Your task to perform on an android device: choose inbox layout in the gmail app Image 0: 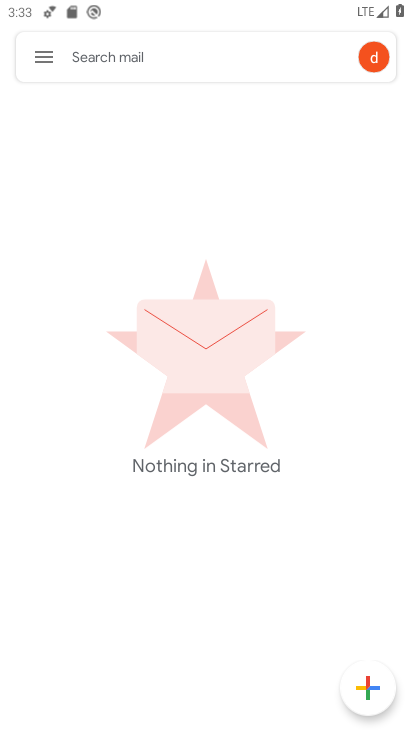
Step 0: press home button
Your task to perform on an android device: choose inbox layout in the gmail app Image 1: 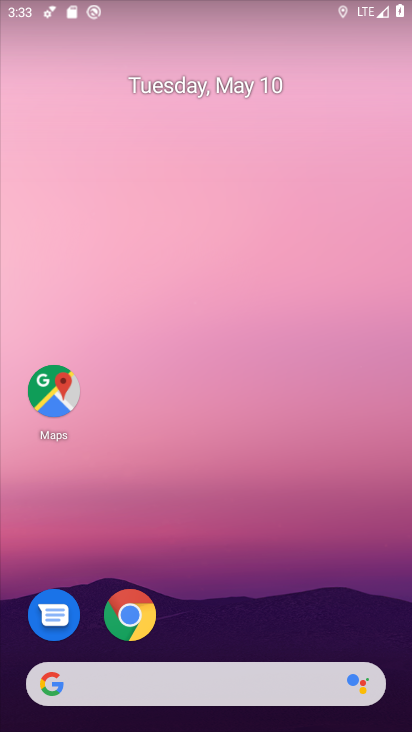
Step 1: drag from (258, 629) to (218, 164)
Your task to perform on an android device: choose inbox layout in the gmail app Image 2: 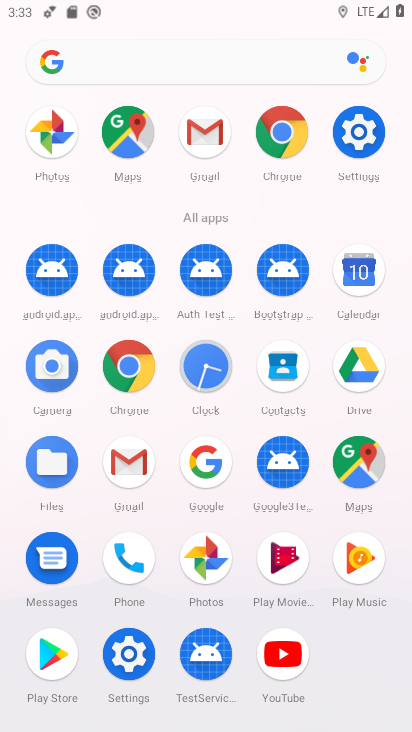
Step 2: click (197, 139)
Your task to perform on an android device: choose inbox layout in the gmail app Image 3: 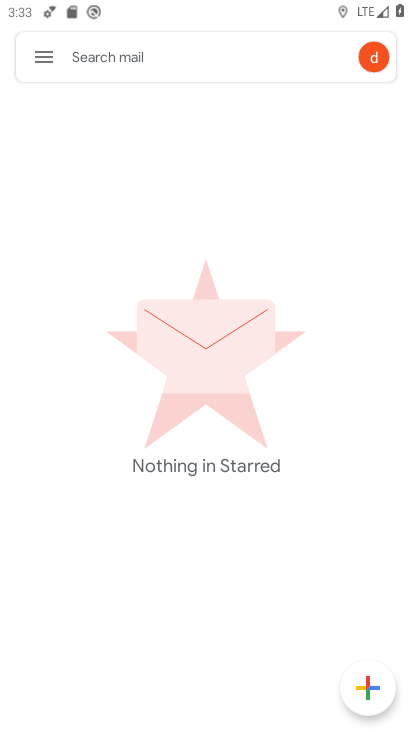
Step 3: click (47, 54)
Your task to perform on an android device: choose inbox layout in the gmail app Image 4: 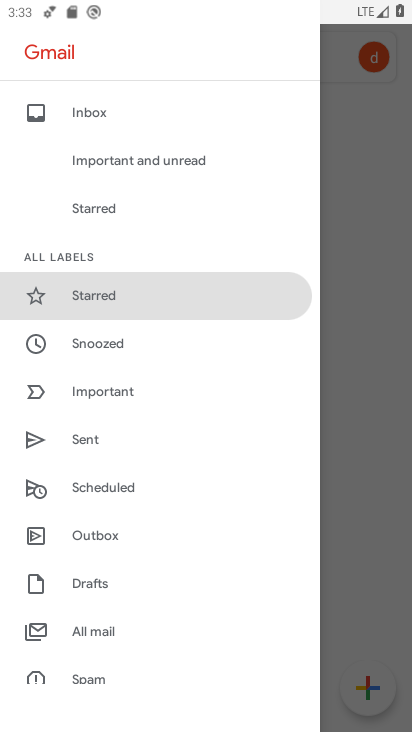
Step 4: click (87, 109)
Your task to perform on an android device: choose inbox layout in the gmail app Image 5: 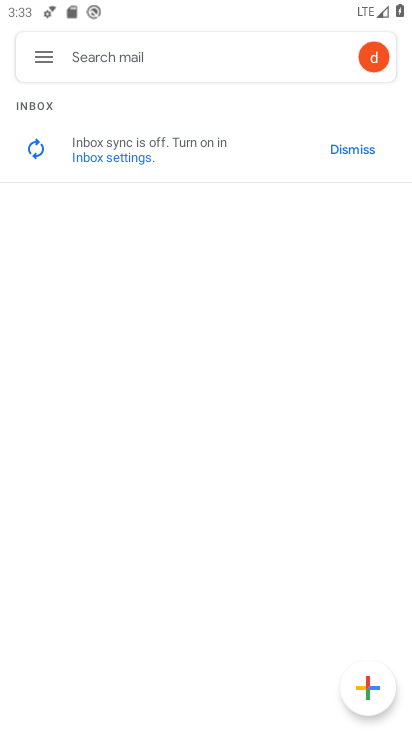
Step 5: click (139, 159)
Your task to perform on an android device: choose inbox layout in the gmail app Image 6: 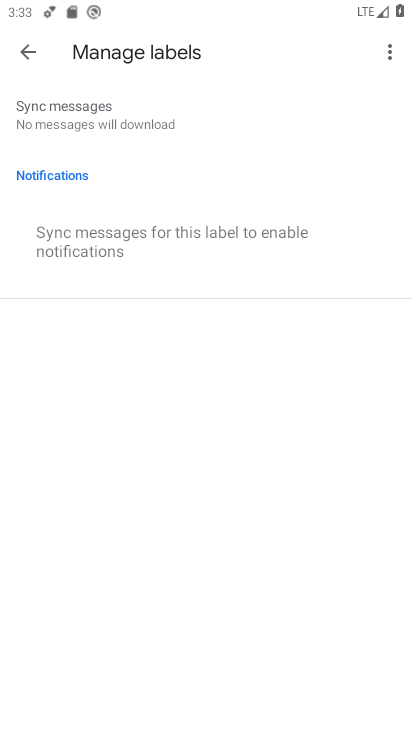
Step 6: click (31, 44)
Your task to perform on an android device: choose inbox layout in the gmail app Image 7: 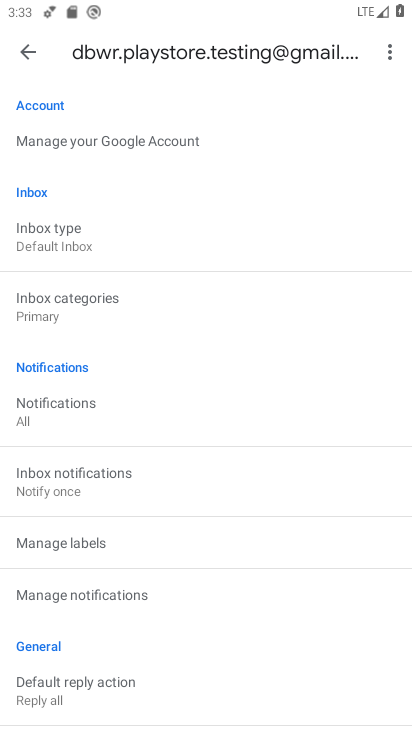
Step 7: drag from (333, 357) to (318, 131)
Your task to perform on an android device: choose inbox layout in the gmail app Image 8: 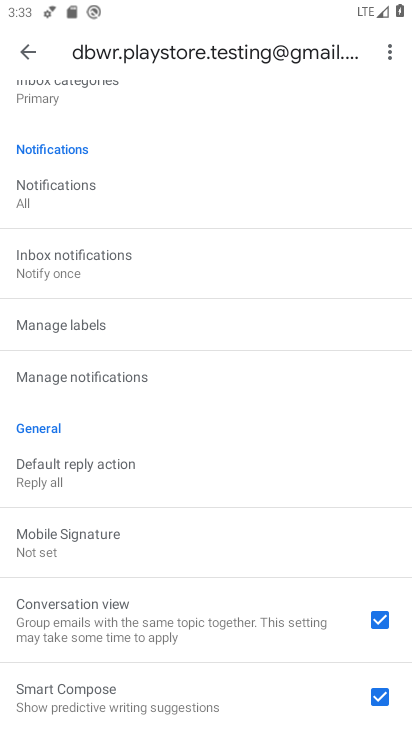
Step 8: click (26, 51)
Your task to perform on an android device: choose inbox layout in the gmail app Image 9: 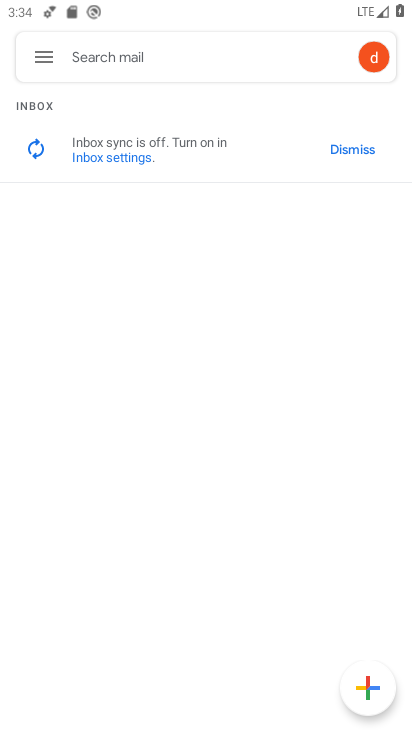
Step 9: click (38, 63)
Your task to perform on an android device: choose inbox layout in the gmail app Image 10: 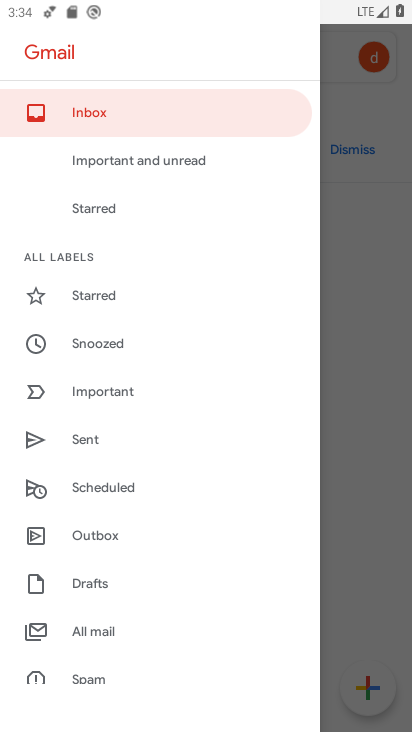
Step 10: drag from (222, 583) to (212, 291)
Your task to perform on an android device: choose inbox layout in the gmail app Image 11: 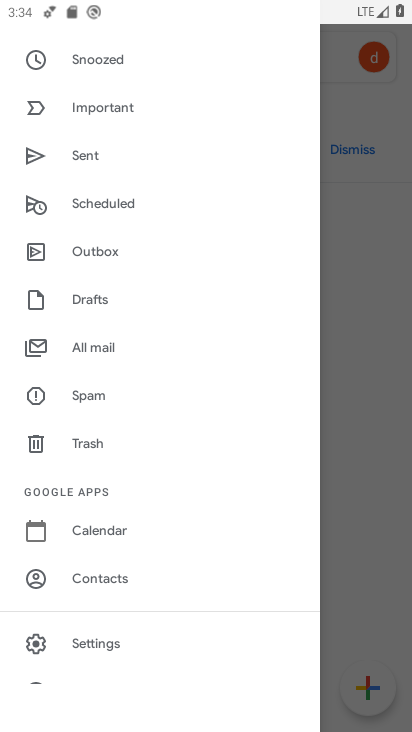
Step 11: click (106, 640)
Your task to perform on an android device: choose inbox layout in the gmail app Image 12: 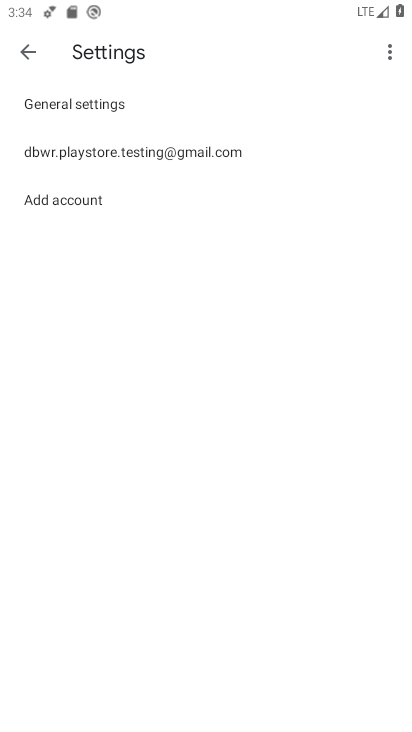
Step 12: click (115, 154)
Your task to perform on an android device: choose inbox layout in the gmail app Image 13: 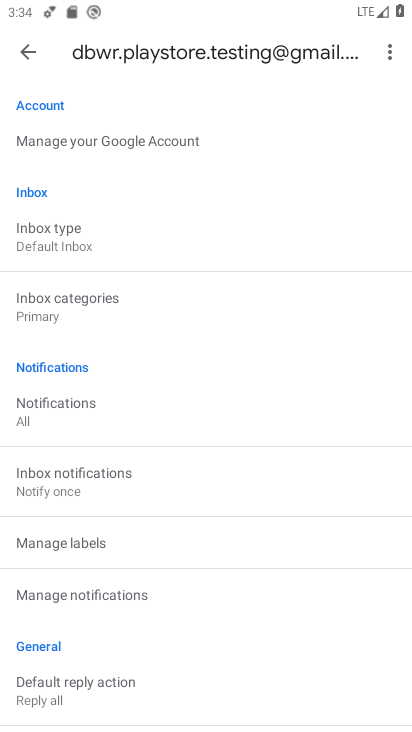
Step 13: click (76, 239)
Your task to perform on an android device: choose inbox layout in the gmail app Image 14: 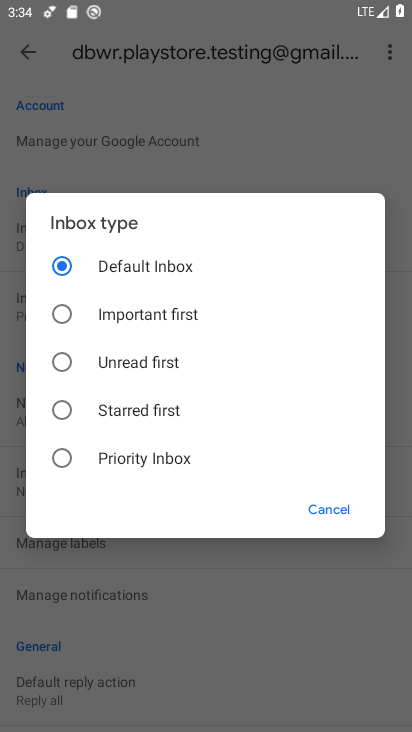
Step 14: click (341, 515)
Your task to perform on an android device: choose inbox layout in the gmail app Image 15: 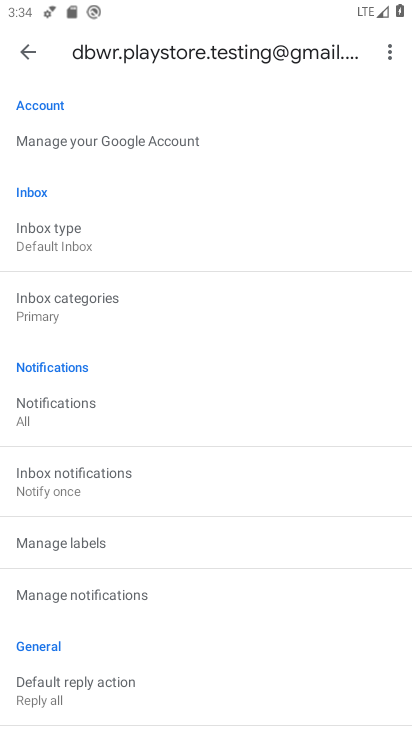
Step 15: drag from (334, 355) to (332, 178)
Your task to perform on an android device: choose inbox layout in the gmail app Image 16: 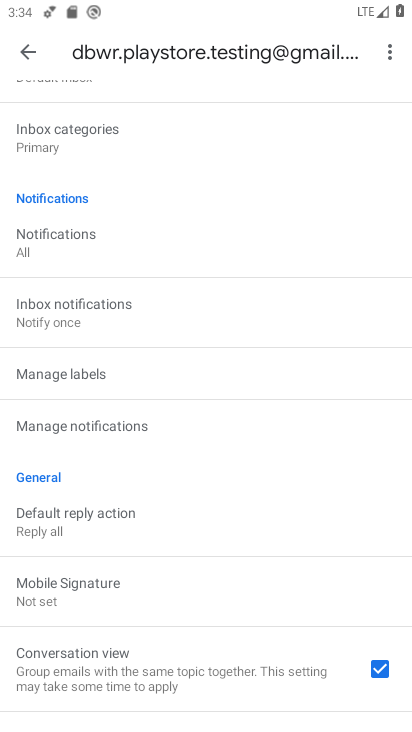
Step 16: drag from (334, 238) to (355, 109)
Your task to perform on an android device: choose inbox layout in the gmail app Image 17: 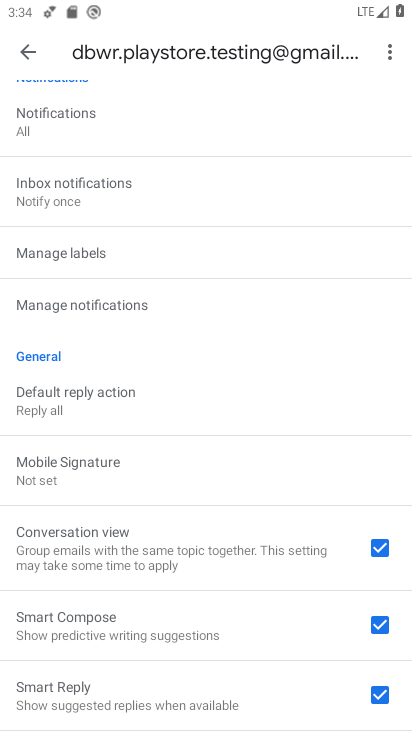
Step 17: drag from (334, 212) to (356, 98)
Your task to perform on an android device: choose inbox layout in the gmail app Image 18: 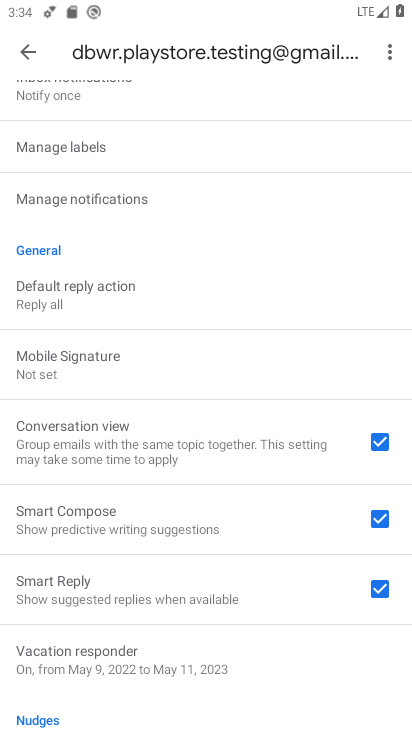
Step 18: drag from (349, 294) to (372, 152)
Your task to perform on an android device: choose inbox layout in the gmail app Image 19: 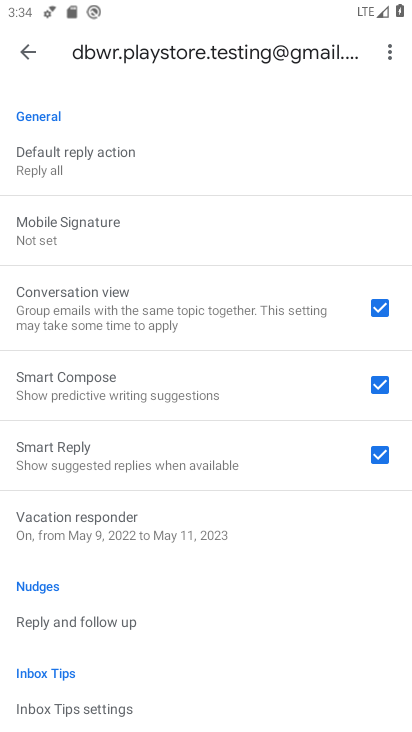
Step 19: drag from (301, 585) to (349, 202)
Your task to perform on an android device: choose inbox layout in the gmail app Image 20: 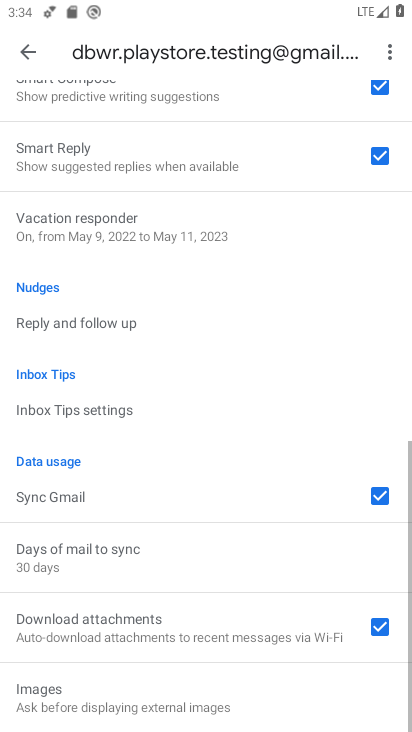
Step 20: drag from (296, 460) to (313, 183)
Your task to perform on an android device: choose inbox layout in the gmail app Image 21: 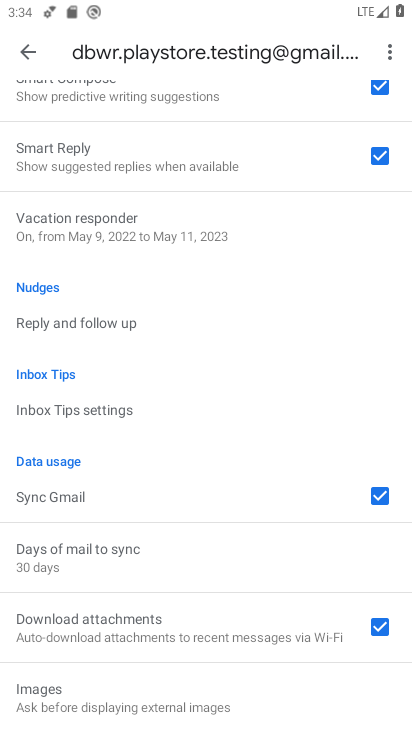
Step 21: drag from (310, 250) to (262, 568)
Your task to perform on an android device: choose inbox layout in the gmail app Image 22: 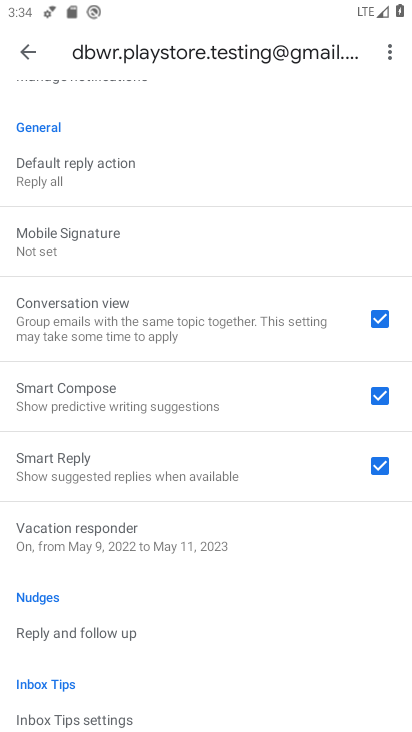
Step 22: drag from (284, 164) to (259, 513)
Your task to perform on an android device: choose inbox layout in the gmail app Image 23: 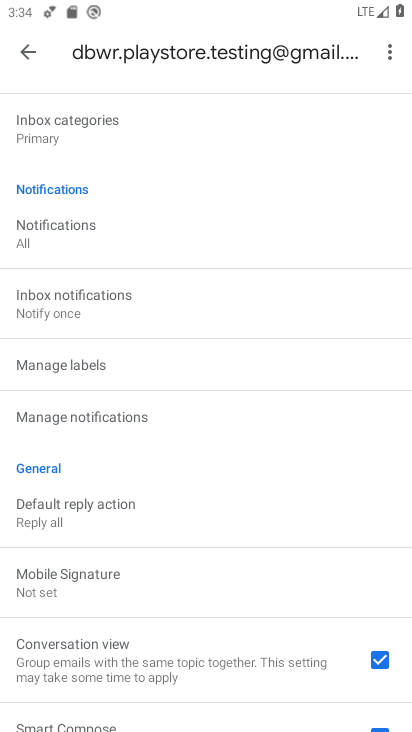
Step 23: drag from (280, 199) to (248, 557)
Your task to perform on an android device: choose inbox layout in the gmail app Image 24: 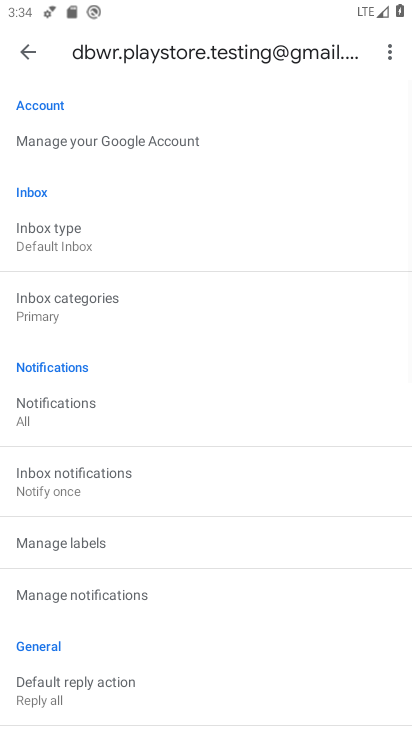
Step 24: click (41, 224)
Your task to perform on an android device: choose inbox layout in the gmail app Image 25: 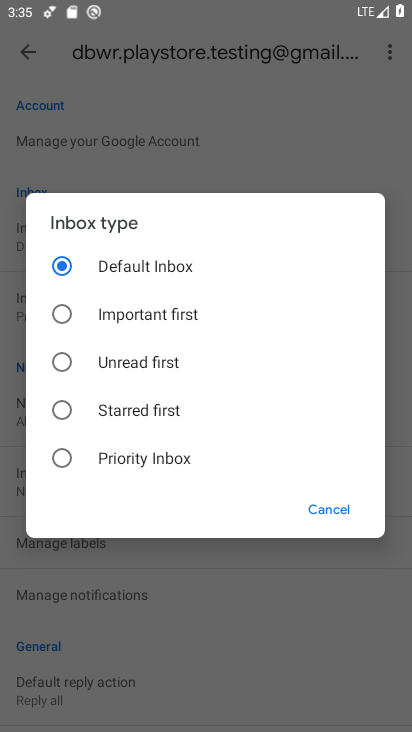
Step 25: click (120, 318)
Your task to perform on an android device: choose inbox layout in the gmail app Image 26: 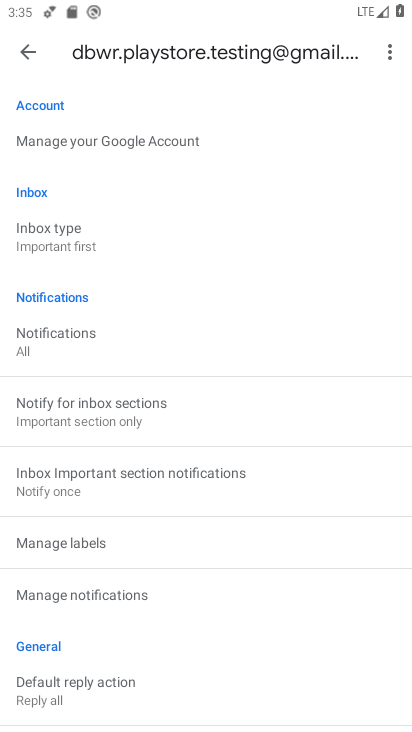
Step 26: task complete